Your task to perform on an android device: Search for vegetarian restaurants on Maps Image 0: 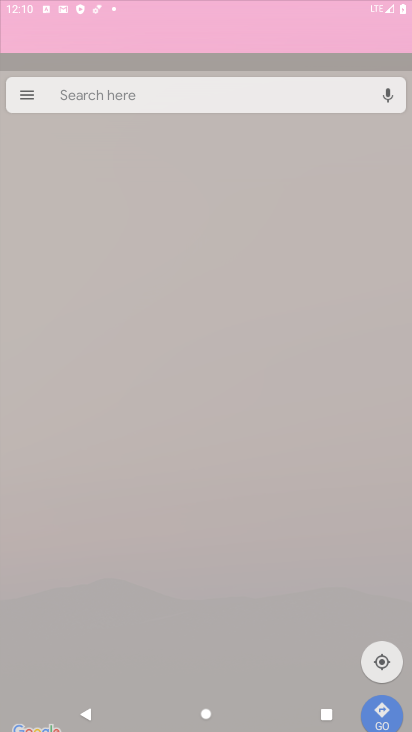
Step 0: drag from (167, 192) to (161, 101)
Your task to perform on an android device: Search for vegetarian restaurants on Maps Image 1: 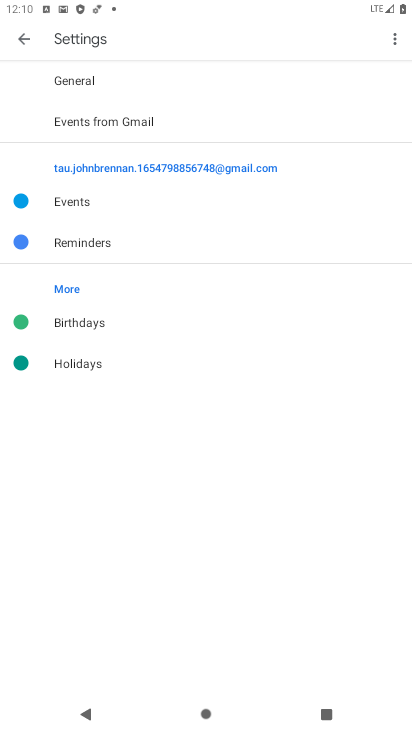
Step 1: press home button
Your task to perform on an android device: Search for vegetarian restaurants on Maps Image 2: 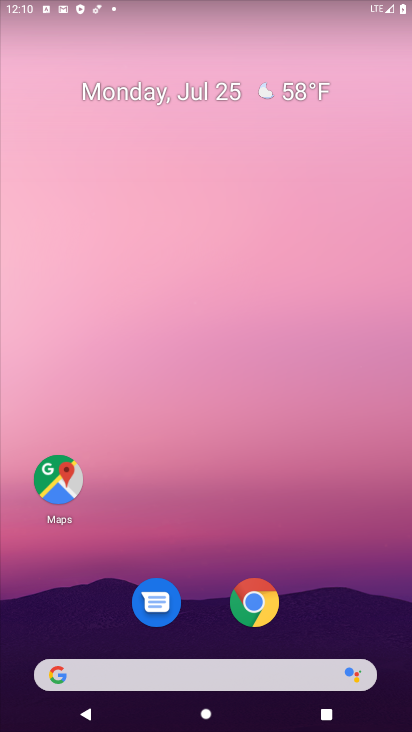
Step 2: click (43, 477)
Your task to perform on an android device: Search for vegetarian restaurants on Maps Image 3: 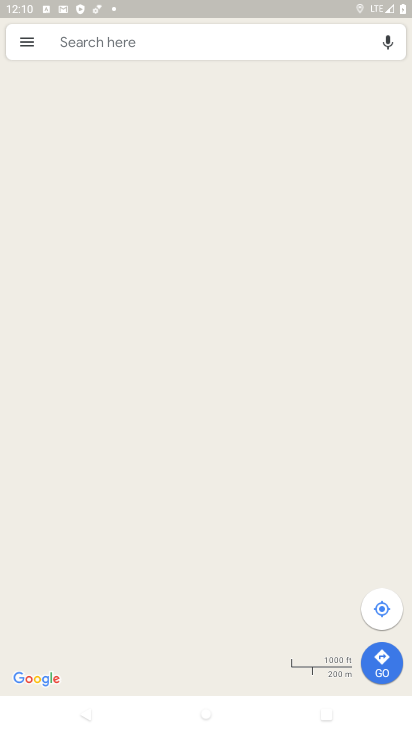
Step 3: click (169, 54)
Your task to perform on an android device: Search for vegetarian restaurants on Maps Image 4: 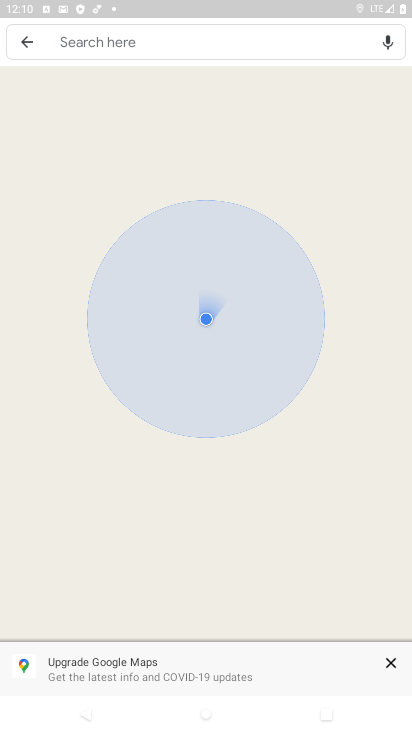
Step 4: click (151, 54)
Your task to perform on an android device: Search for vegetarian restaurants on Maps Image 5: 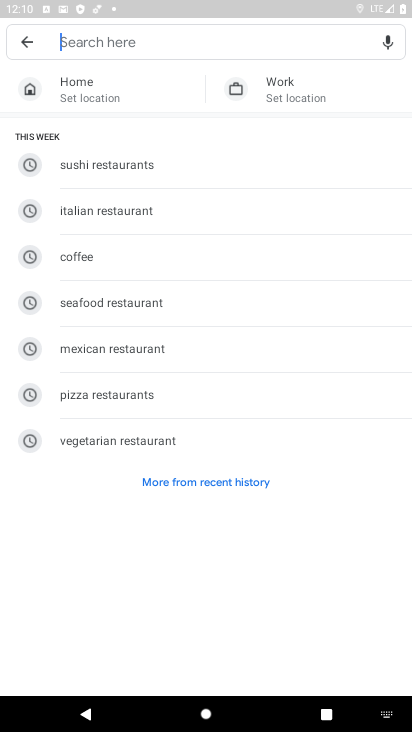
Step 5: type "vegetarian restaurants "
Your task to perform on an android device: Search for vegetarian restaurants on Maps Image 6: 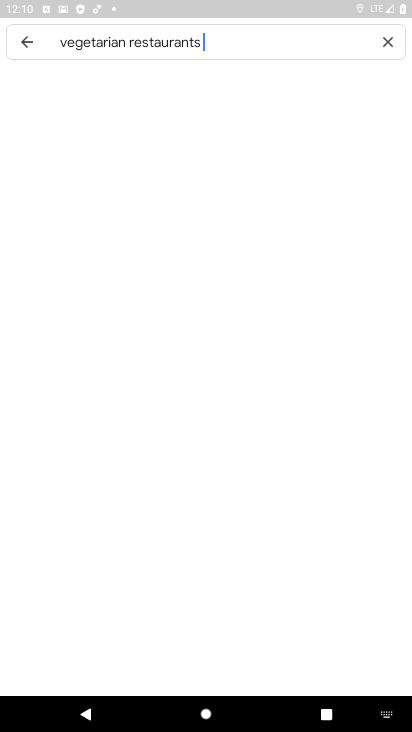
Step 6: type ""
Your task to perform on an android device: Search for vegetarian restaurants on Maps Image 7: 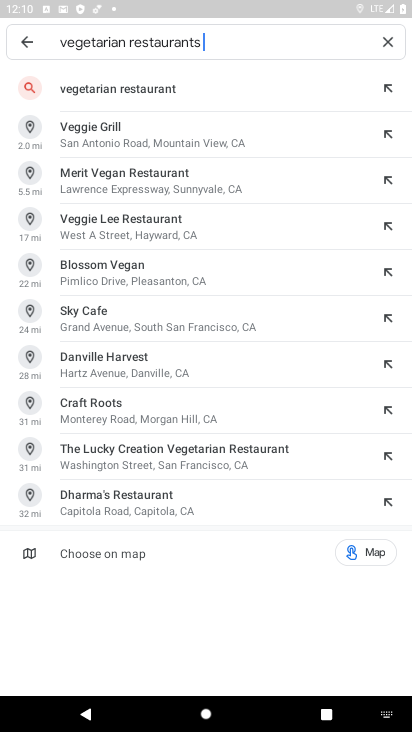
Step 7: click (239, 92)
Your task to perform on an android device: Search for vegetarian restaurants on Maps Image 8: 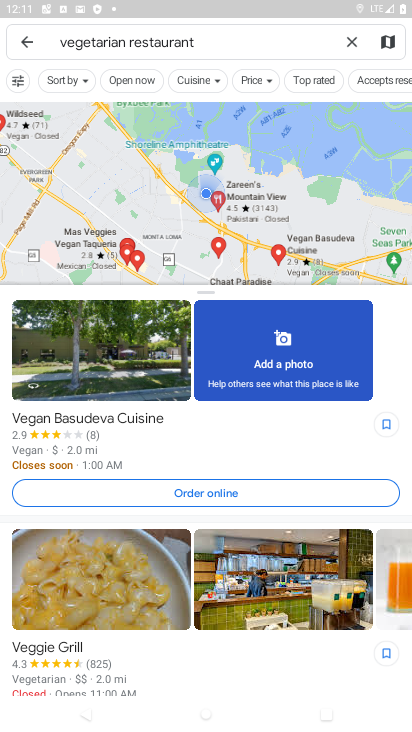
Step 8: task complete